Your task to perform on an android device: Open calendar and show me the third week of next month Image 0: 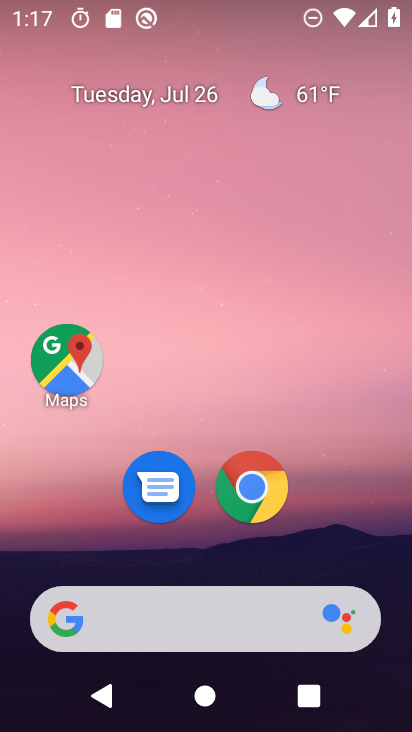
Step 0: drag from (74, 581) to (197, 99)
Your task to perform on an android device: Open calendar and show me the third week of next month Image 1: 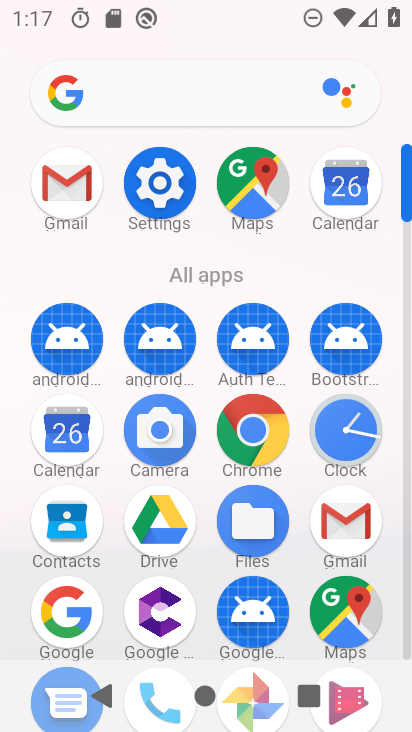
Step 1: click (67, 436)
Your task to perform on an android device: Open calendar and show me the third week of next month Image 2: 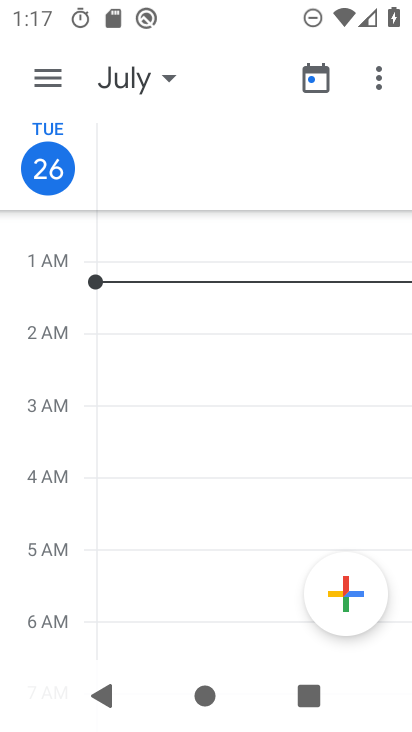
Step 2: click (139, 72)
Your task to perform on an android device: Open calendar and show me the third week of next month Image 3: 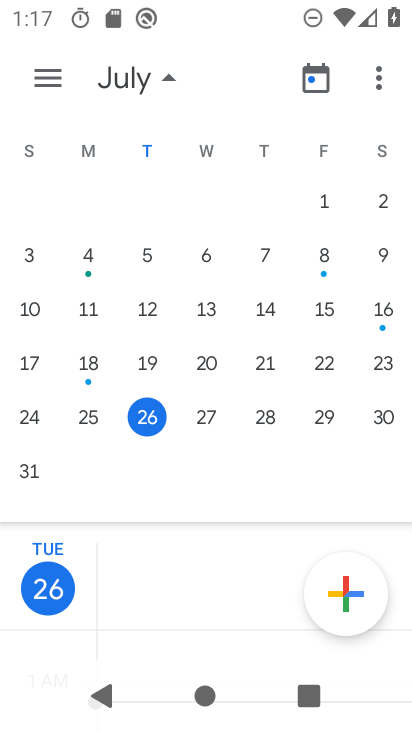
Step 3: drag from (389, 307) to (2, 315)
Your task to perform on an android device: Open calendar and show me the third week of next month Image 4: 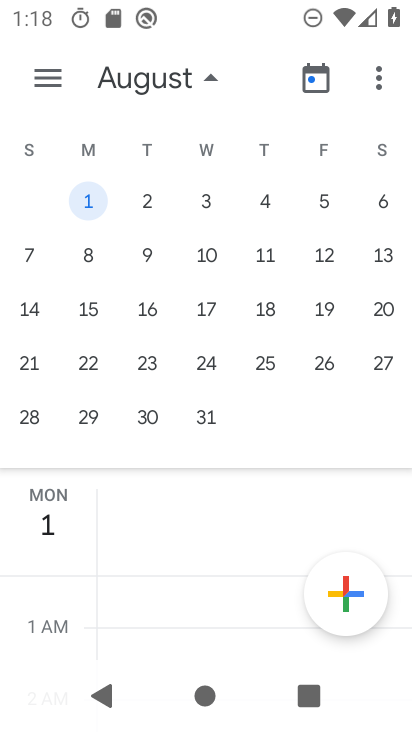
Step 4: click (83, 313)
Your task to perform on an android device: Open calendar and show me the third week of next month Image 5: 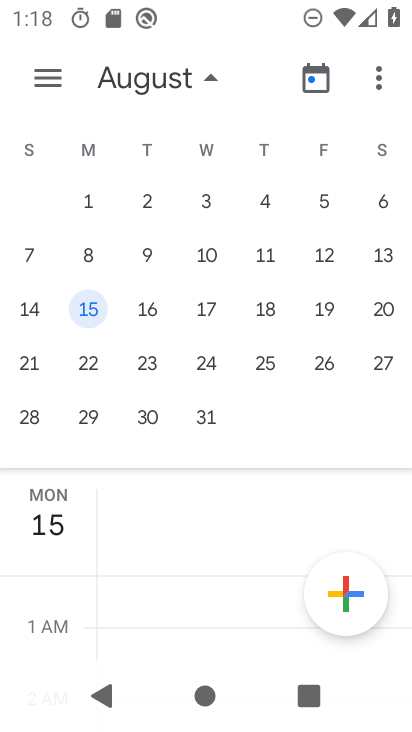
Step 5: task complete